Your task to perform on an android device: turn on sleep mode Image 0: 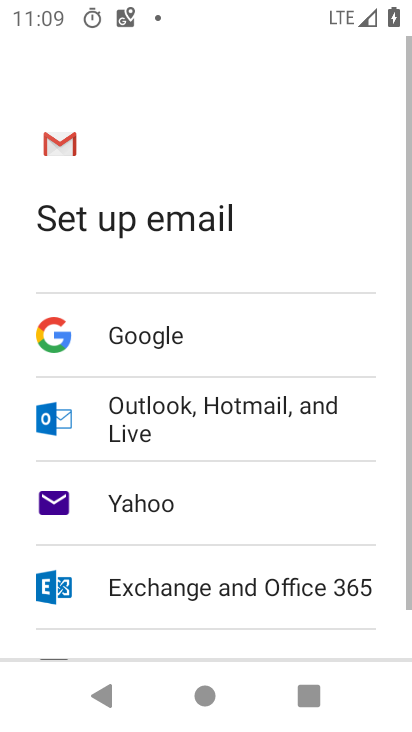
Step 0: press home button
Your task to perform on an android device: turn on sleep mode Image 1: 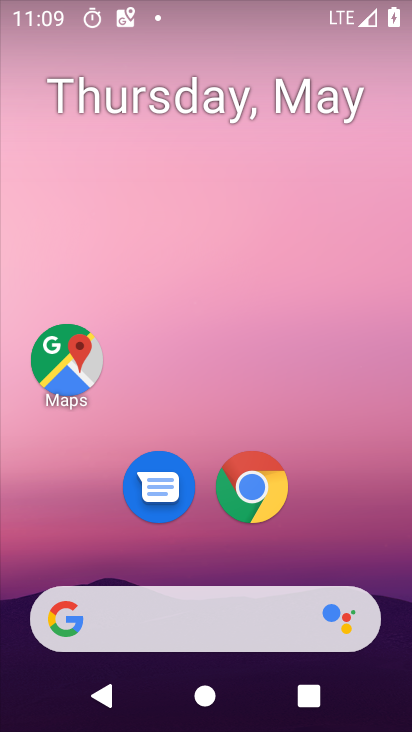
Step 1: drag from (211, 617) to (308, 19)
Your task to perform on an android device: turn on sleep mode Image 2: 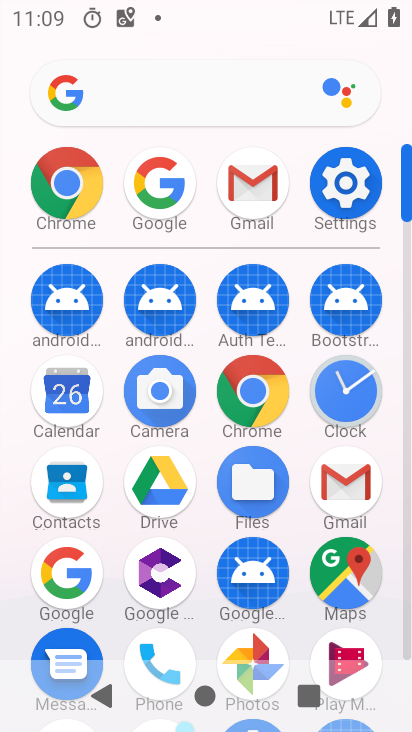
Step 2: click (333, 205)
Your task to perform on an android device: turn on sleep mode Image 3: 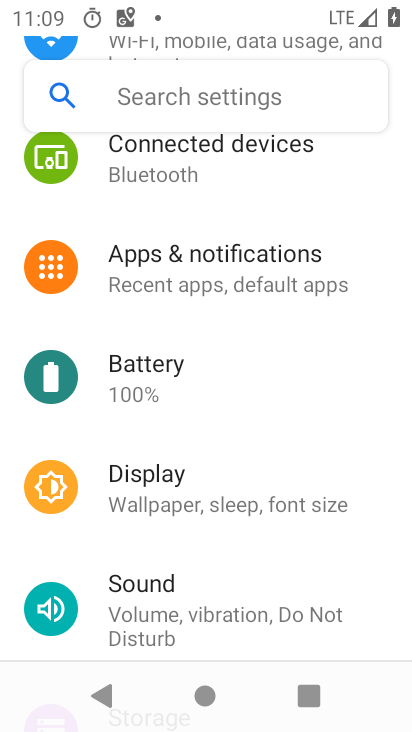
Step 3: click (220, 482)
Your task to perform on an android device: turn on sleep mode Image 4: 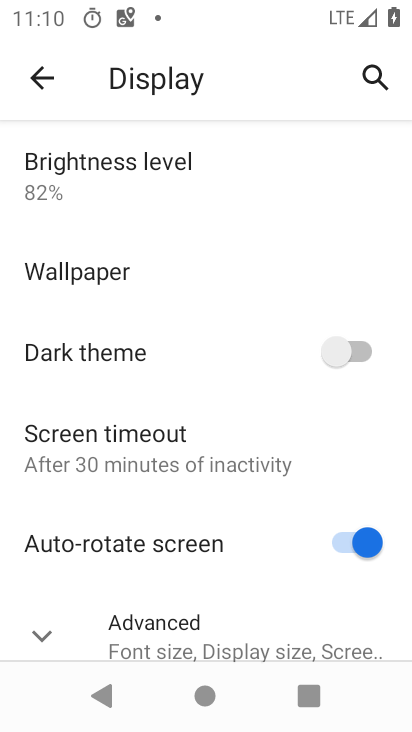
Step 4: click (106, 632)
Your task to perform on an android device: turn on sleep mode Image 5: 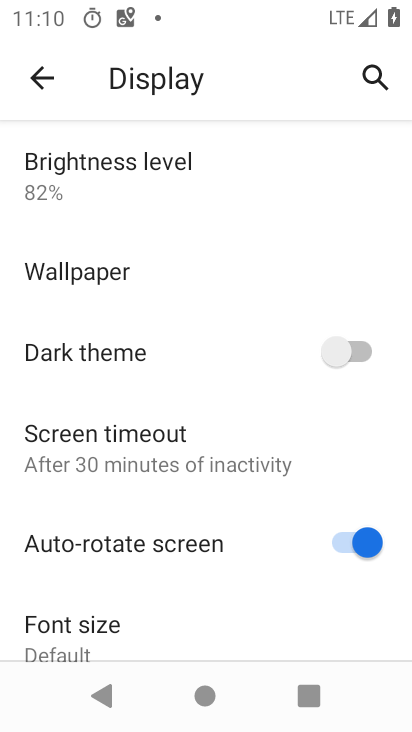
Step 5: task complete